Your task to perform on an android device: Show me recent news Image 0: 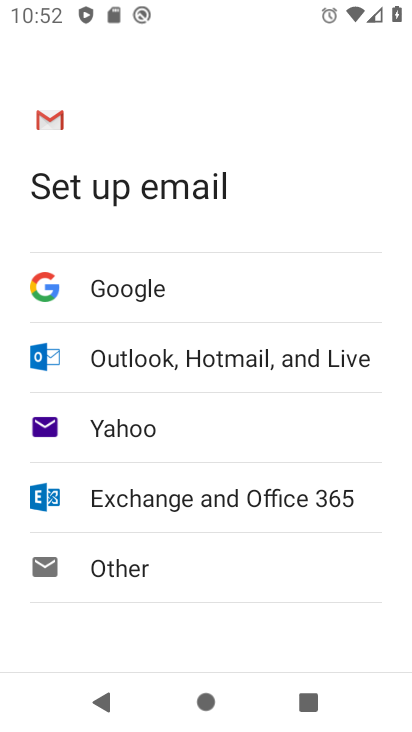
Step 0: press home button
Your task to perform on an android device: Show me recent news Image 1: 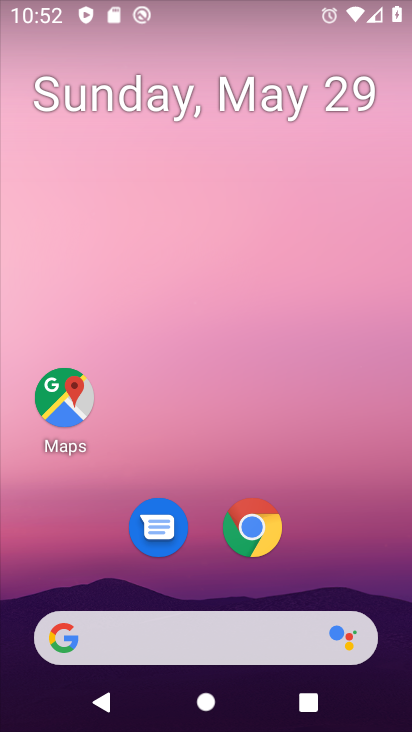
Step 1: click (243, 647)
Your task to perform on an android device: Show me recent news Image 2: 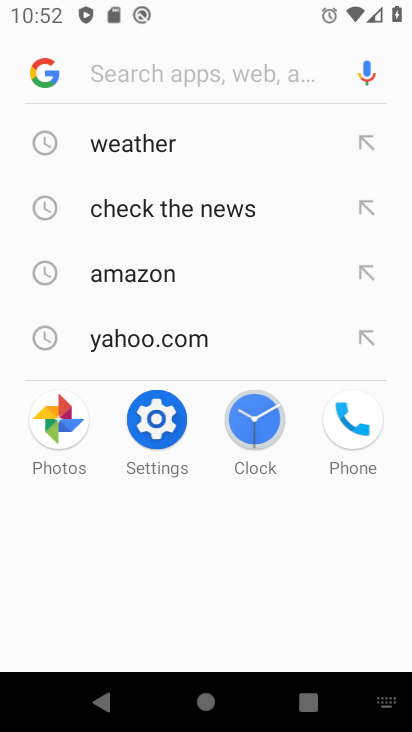
Step 2: click (166, 226)
Your task to perform on an android device: Show me recent news Image 3: 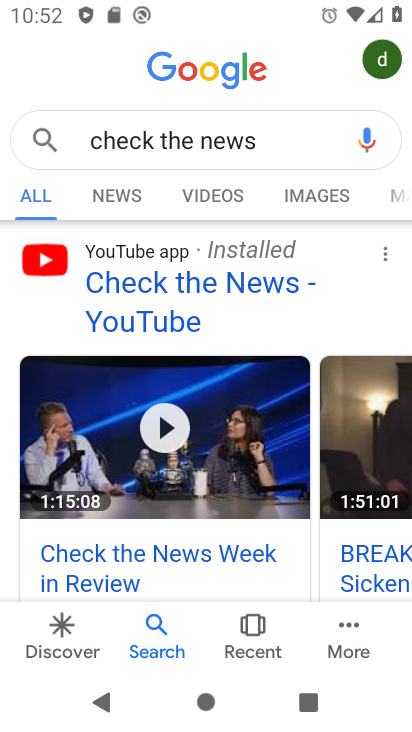
Step 3: task complete